Your task to perform on an android device: set the stopwatch Image 0: 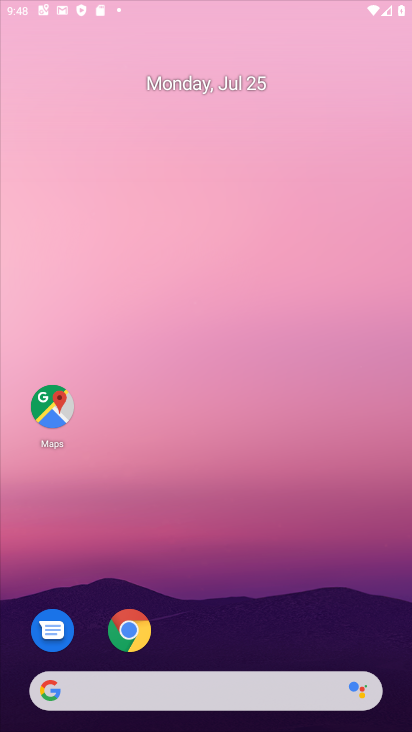
Step 0: press home button
Your task to perform on an android device: set the stopwatch Image 1: 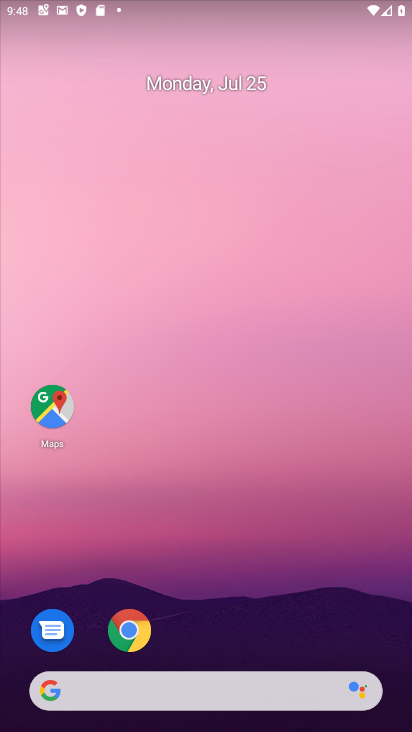
Step 1: drag from (242, 595) to (240, 100)
Your task to perform on an android device: set the stopwatch Image 2: 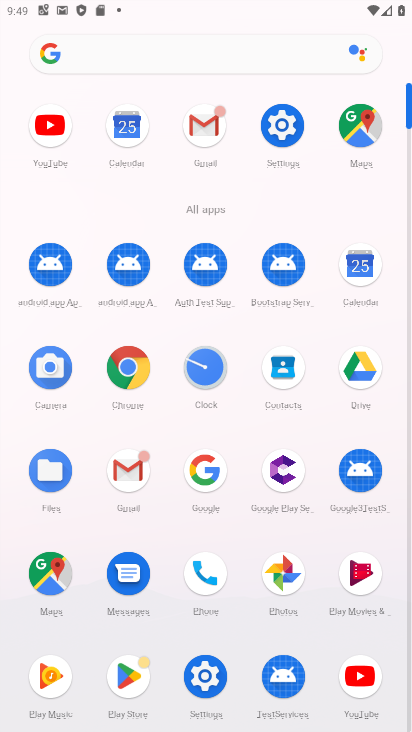
Step 2: click (201, 375)
Your task to perform on an android device: set the stopwatch Image 3: 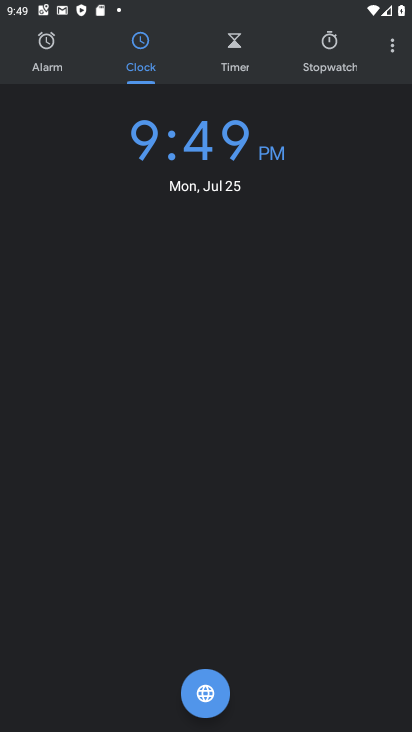
Step 3: click (335, 44)
Your task to perform on an android device: set the stopwatch Image 4: 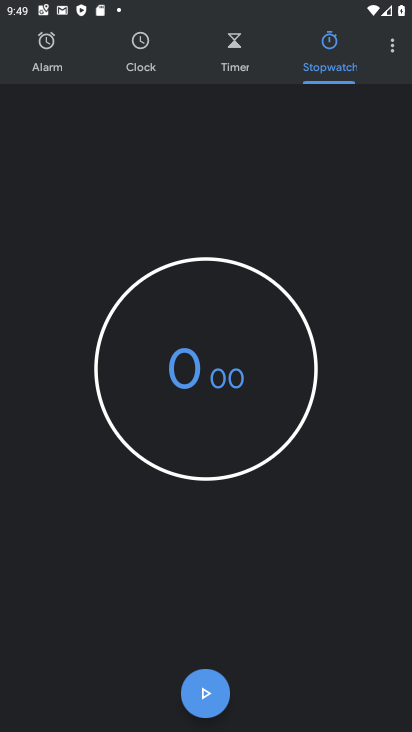
Step 4: click (207, 694)
Your task to perform on an android device: set the stopwatch Image 5: 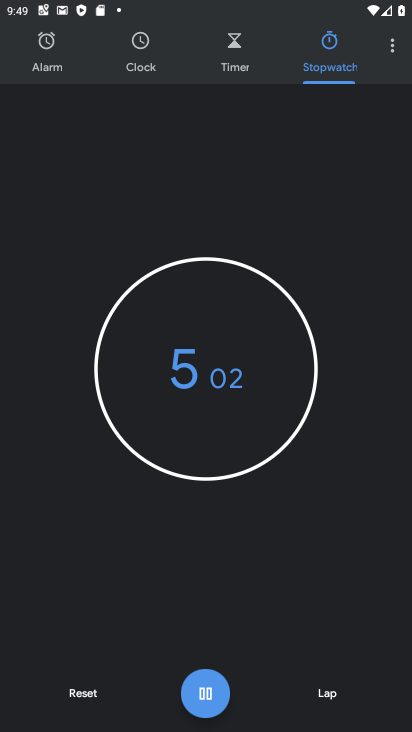
Step 5: task complete